Your task to perform on an android device: uninstall "PUBG MOBILE" Image 0: 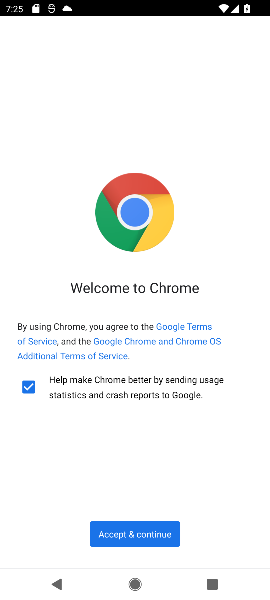
Step 0: press home button
Your task to perform on an android device: uninstall "PUBG MOBILE" Image 1: 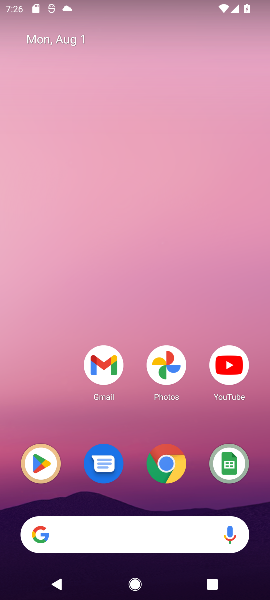
Step 1: task complete